Your task to perform on an android device: Check the news Image 0: 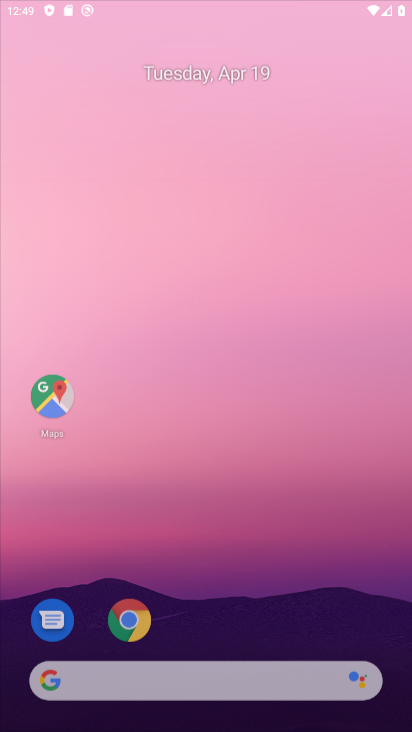
Step 0: press back button
Your task to perform on an android device: Check the news Image 1: 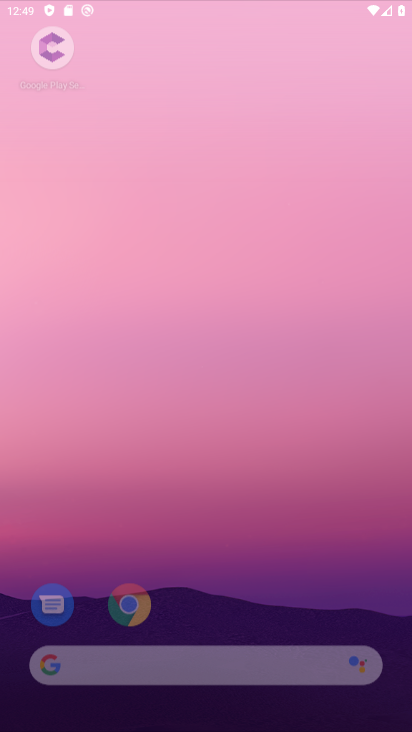
Step 1: task complete